Your task to perform on an android device: Is it going to rain this weekend? Image 0: 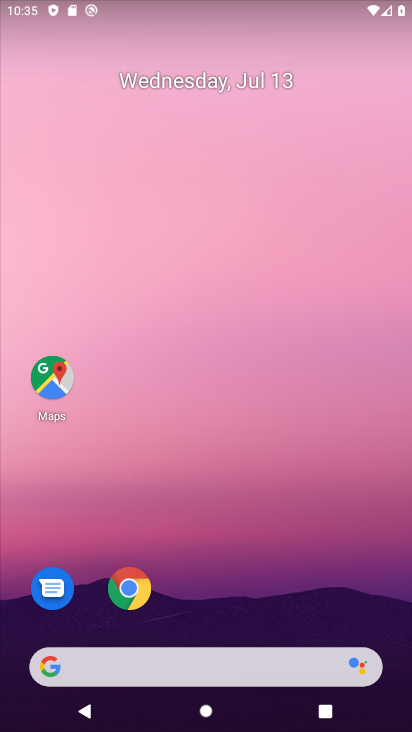
Step 0: drag from (236, 614) to (229, 72)
Your task to perform on an android device: Is it going to rain this weekend? Image 1: 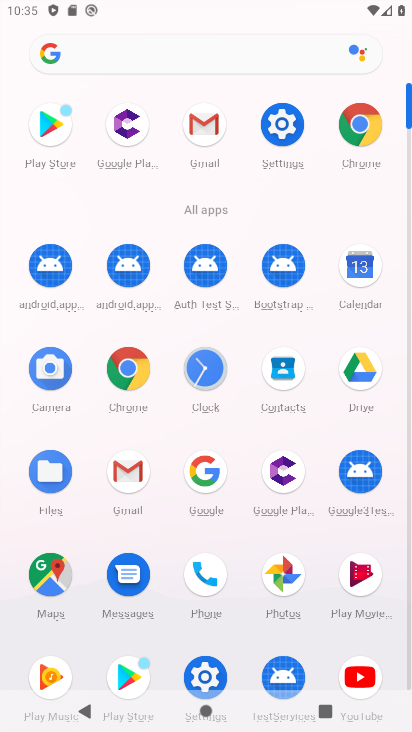
Step 1: click (372, 124)
Your task to perform on an android device: Is it going to rain this weekend? Image 2: 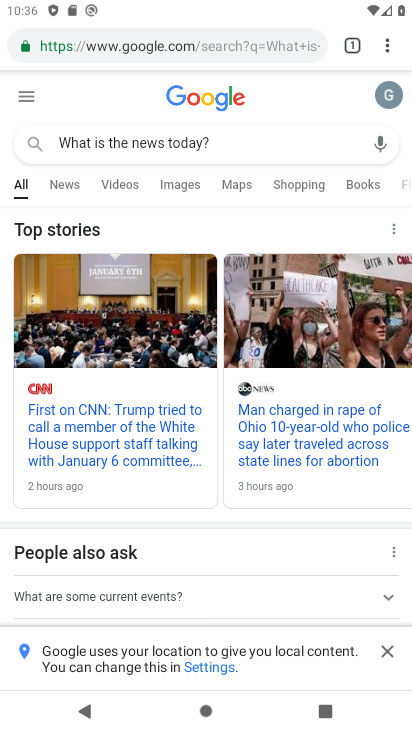
Step 2: click (252, 147)
Your task to perform on an android device: Is it going to rain this weekend? Image 3: 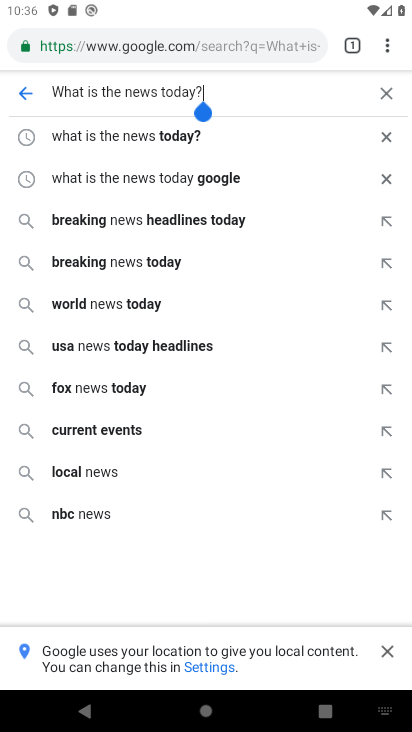
Step 3: click (393, 93)
Your task to perform on an android device: Is it going to rain this weekend? Image 4: 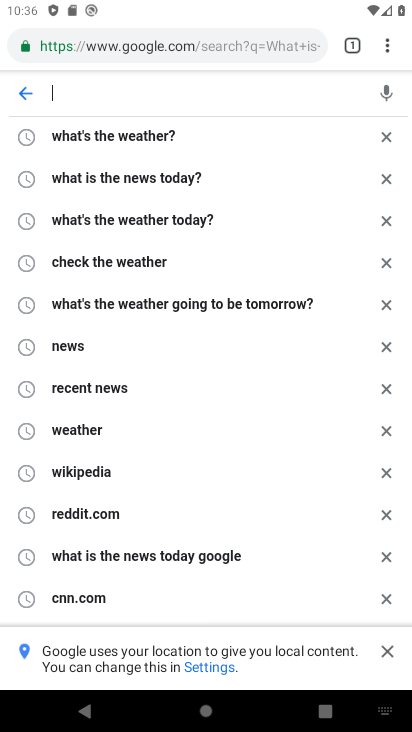
Step 4: type "Is it going to rain this weekend?"
Your task to perform on an android device: Is it going to rain this weekend? Image 5: 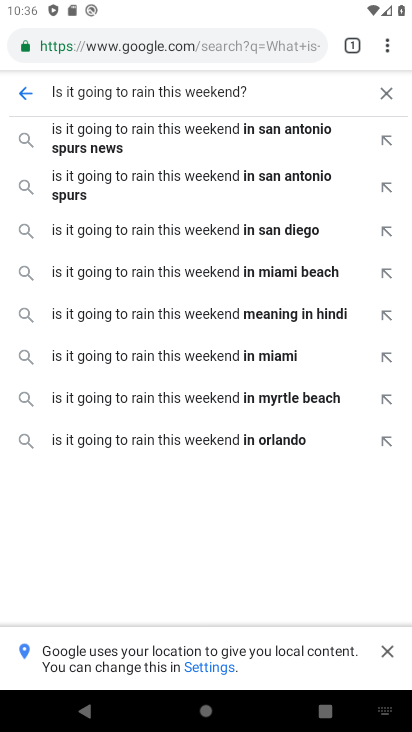
Step 5: press enter
Your task to perform on an android device: Is it going to rain this weekend? Image 6: 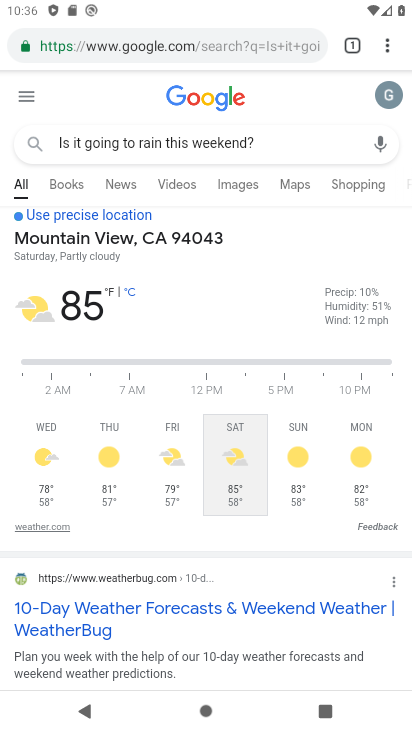
Step 6: task complete